Your task to perform on an android device: open app "Messenger Lite" (install if not already installed) Image 0: 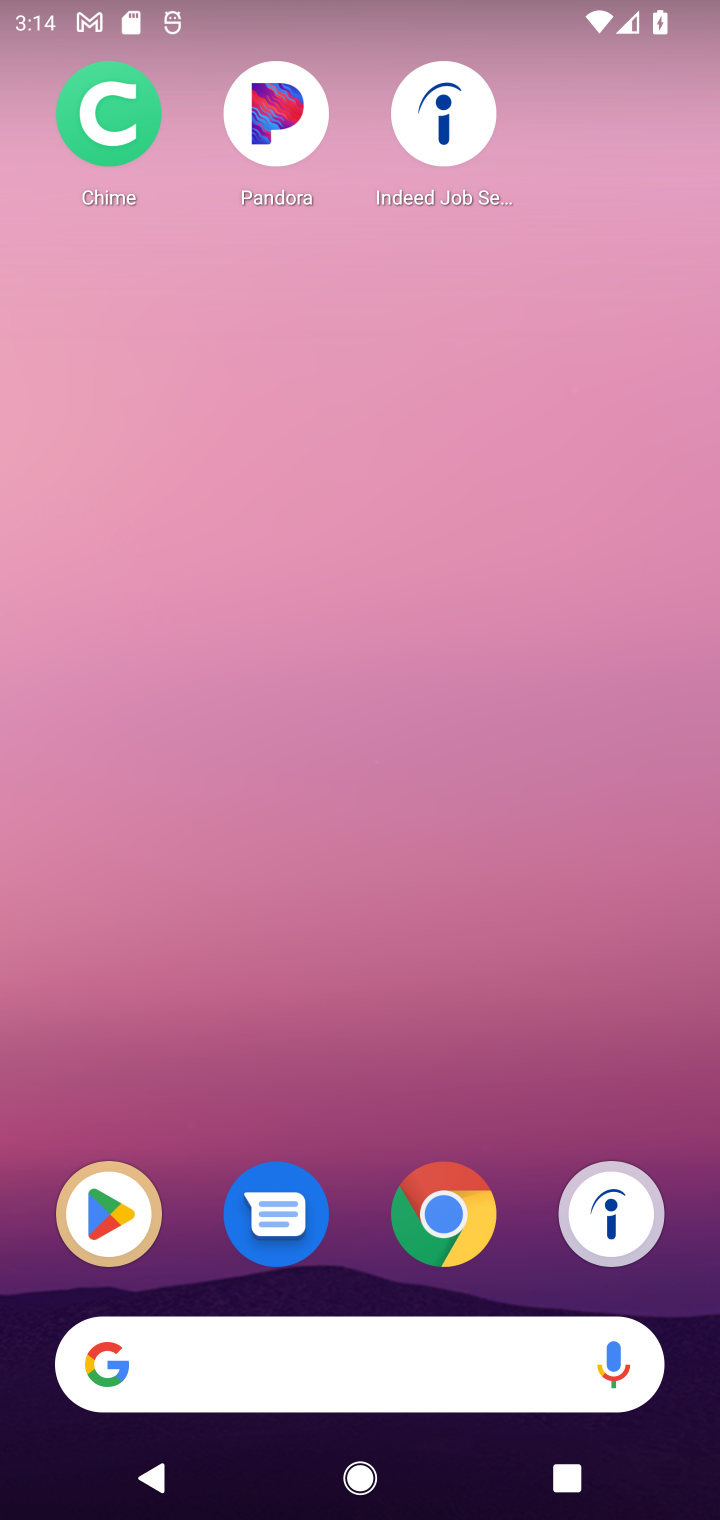
Step 0: click (138, 1206)
Your task to perform on an android device: open app "Messenger Lite" (install if not already installed) Image 1: 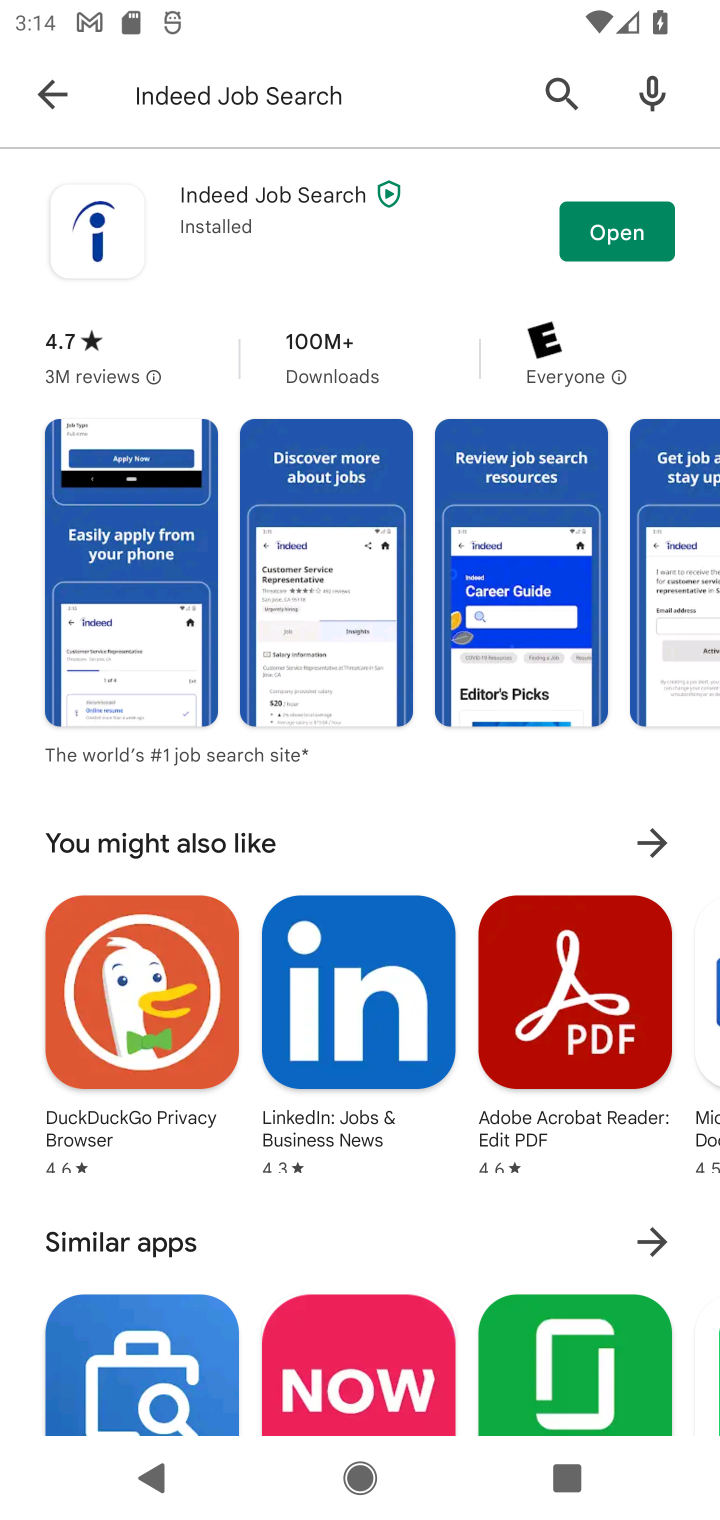
Step 1: click (570, 74)
Your task to perform on an android device: open app "Messenger Lite" (install if not already installed) Image 2: 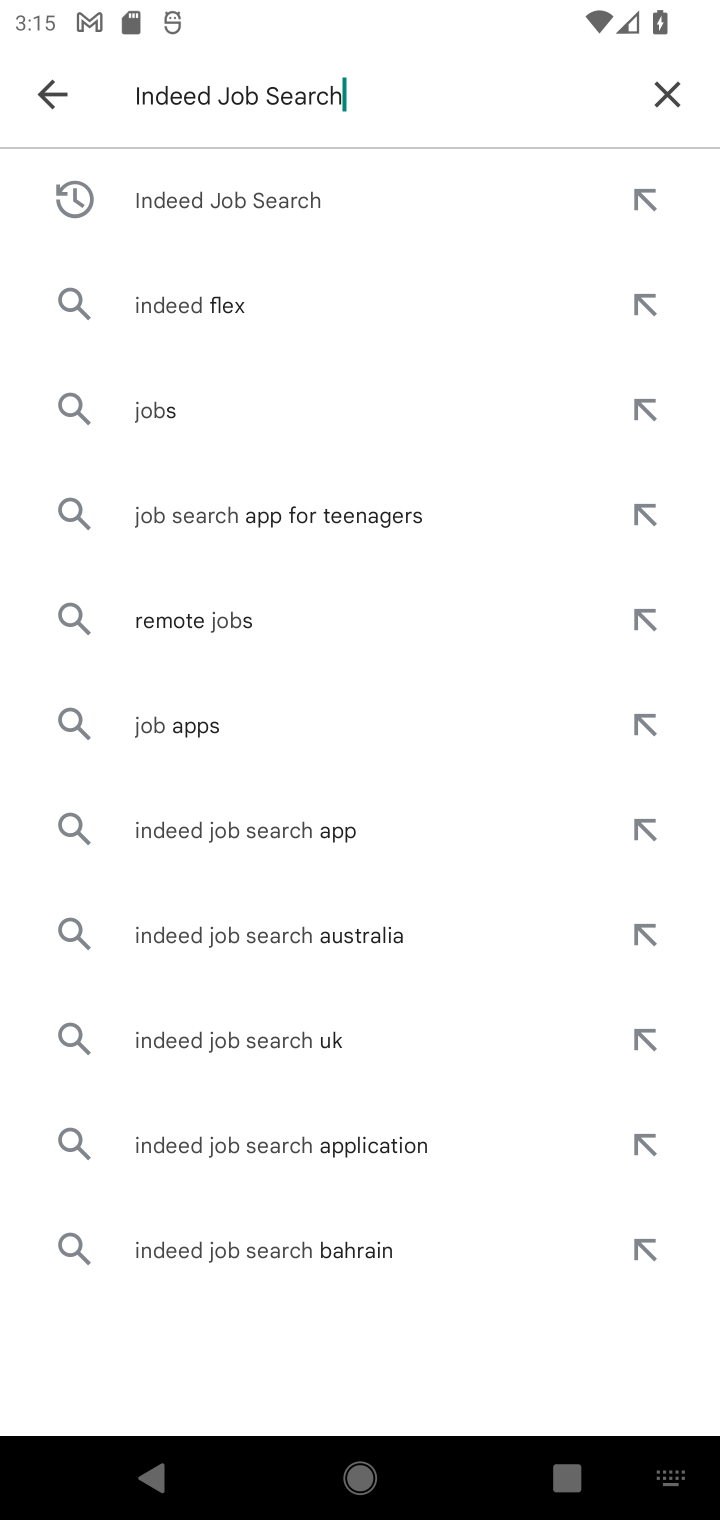
Step 2: click (682, 97)
Your task to perform on an android device: open app "Messenger Lite" (install if not already installed) Image 3: 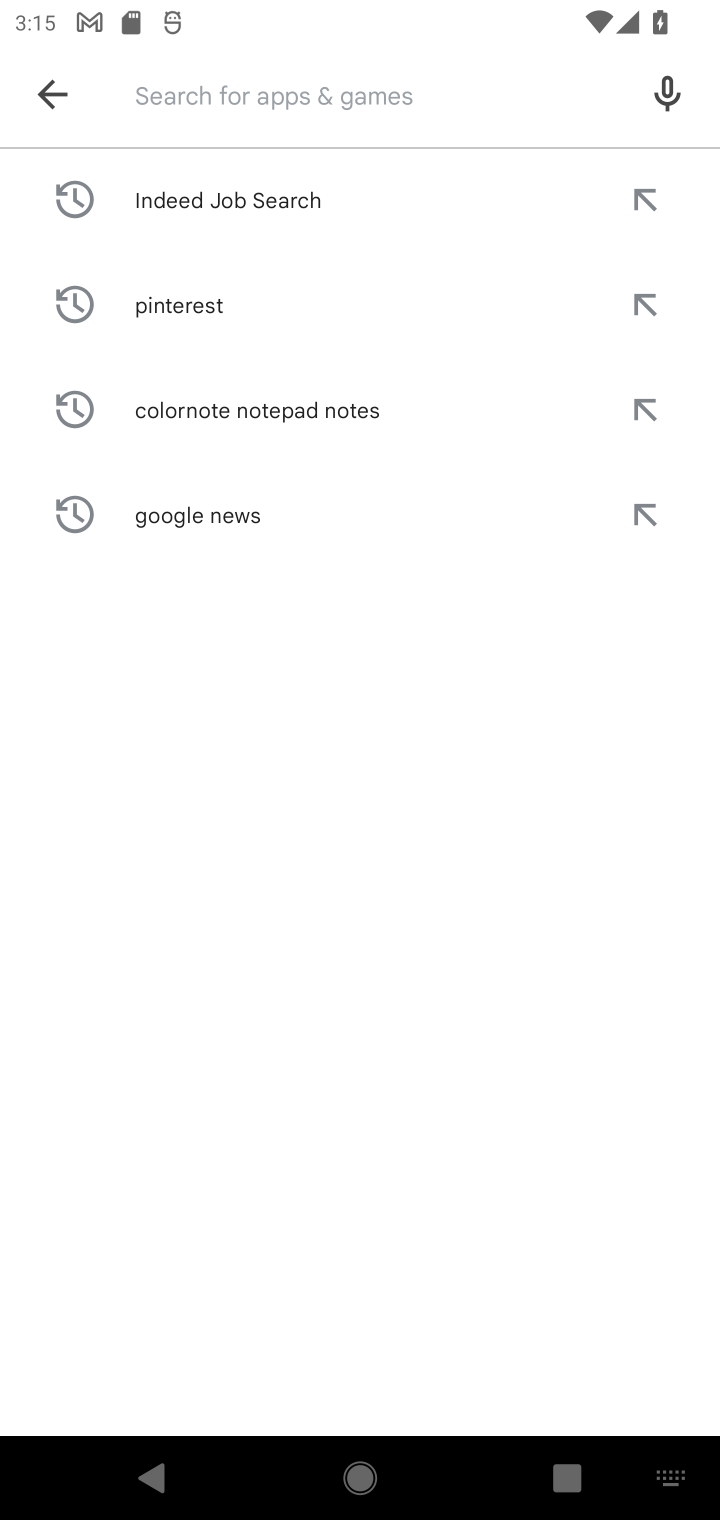
Step 3: type "Messenger Lite"
Your task to perform on an android device: open app "Messenger Lite" (install if not already installed) Image 4: 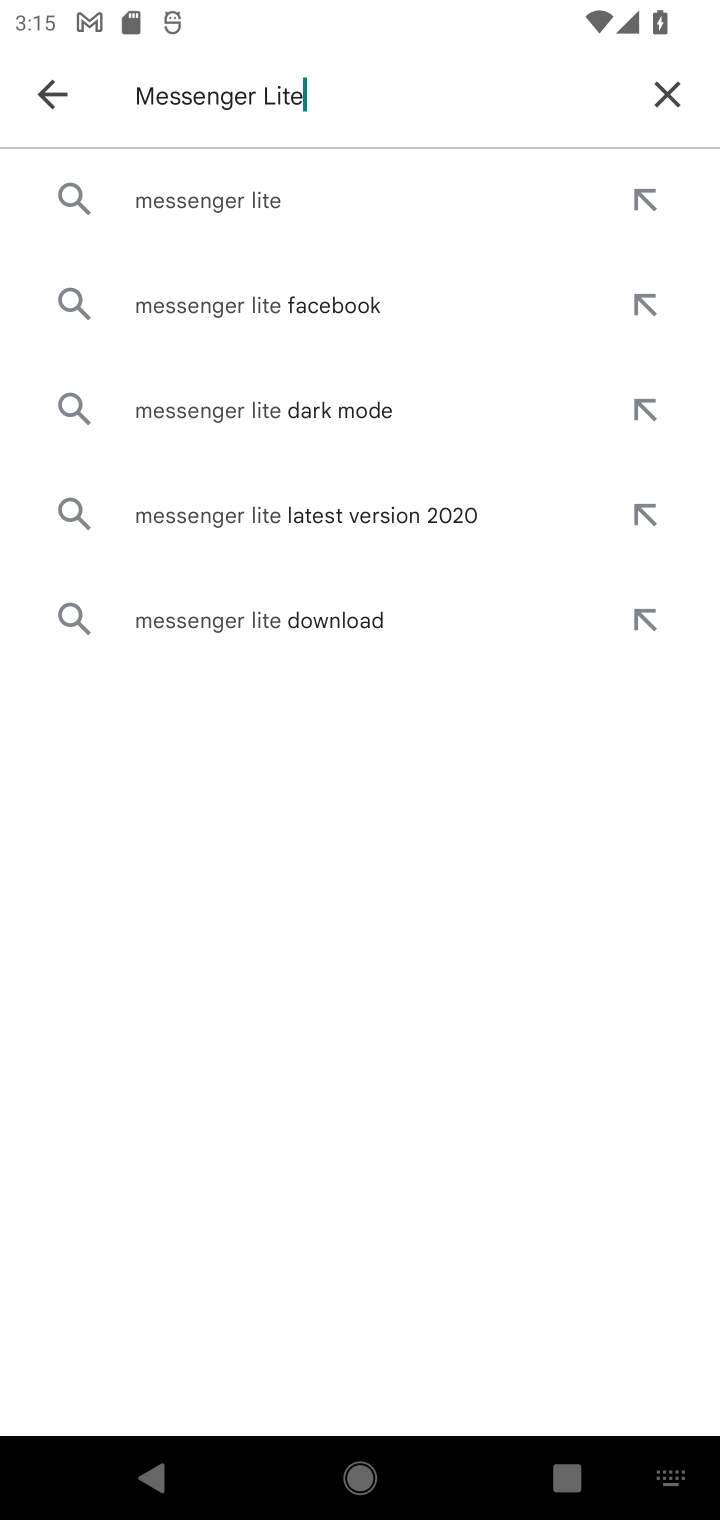
Step 4: click (486, 173)
Your task to perform on an android device: open app "Messenger Lite" (install if not already installed) Image 5: 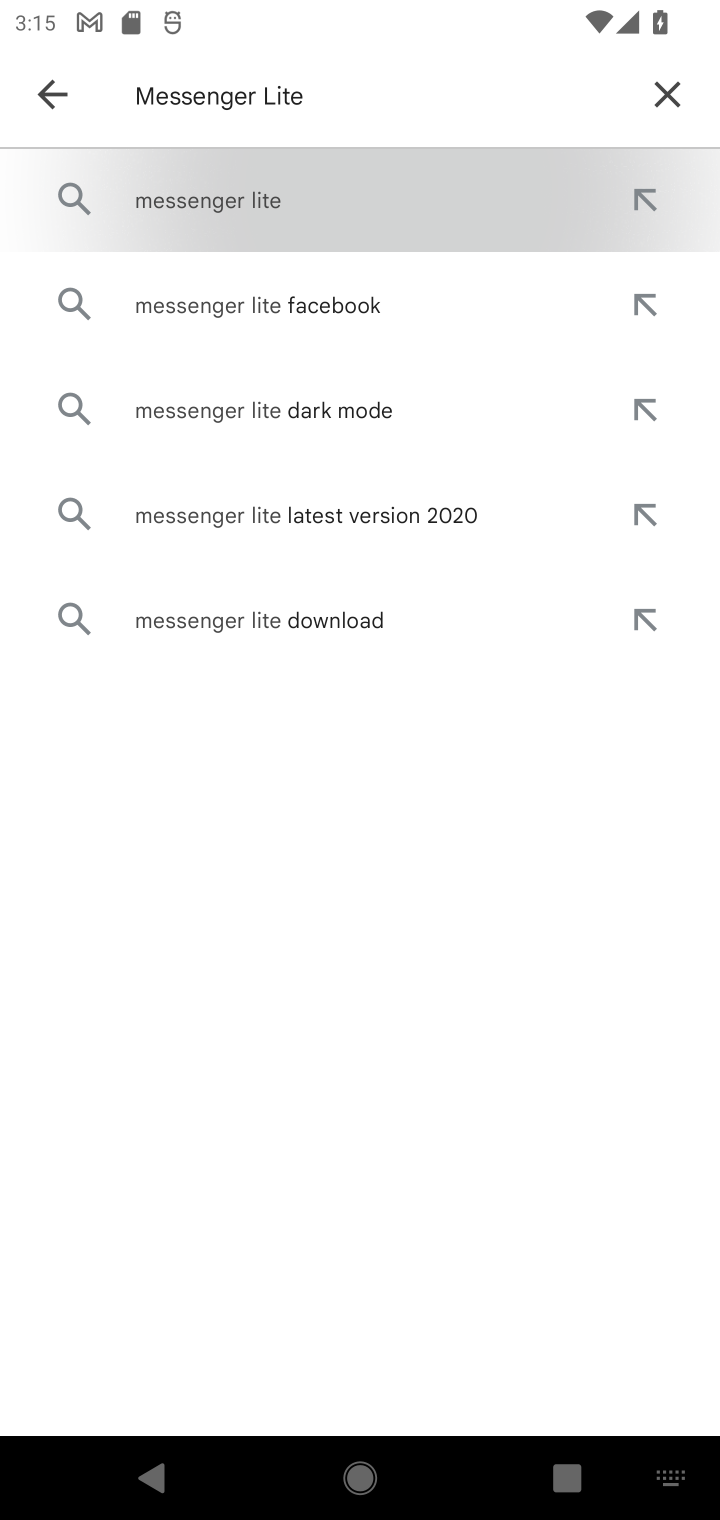
Step 5: click (486, 173)
Your task to perform on an android device: open app "Messenger Lite" (install if not already installed) Image 6: 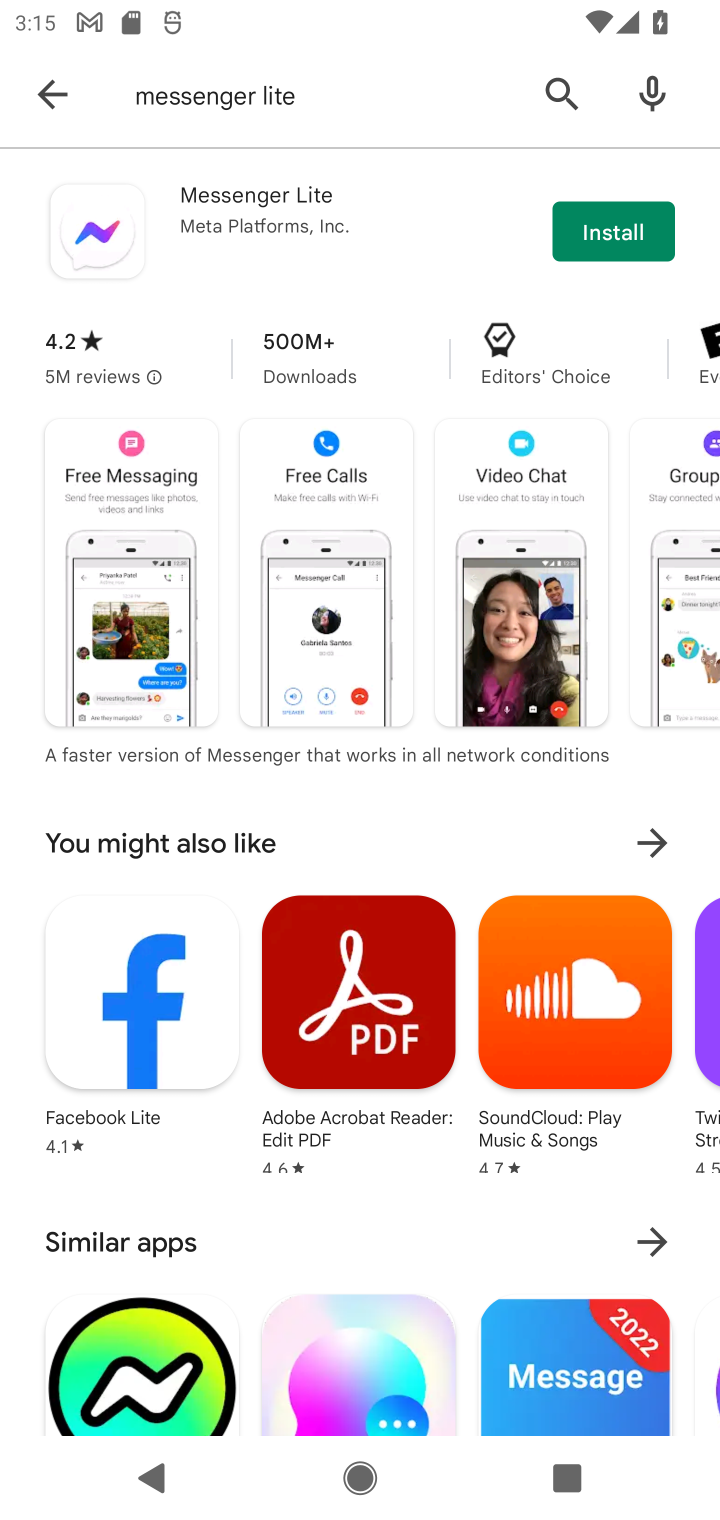
Step 6: drag from (689, 230) to (363, 1374)
Your task to perform on an android device: open app "Messenger Lite" (install if not already installed) Image 7: 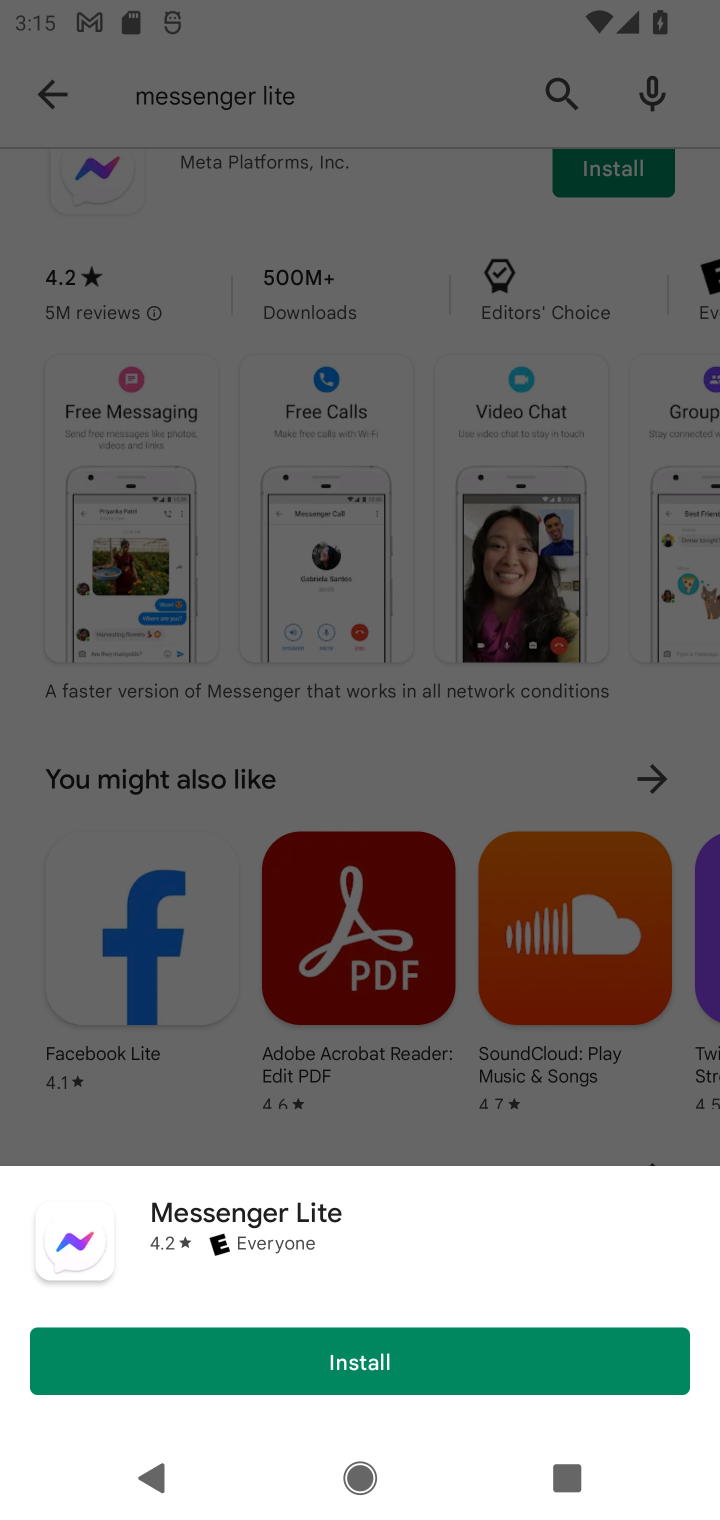
Step 7: click (440, 1359)
Your task to perform on an android device: open app "Messenger Lite" (install if not already installed) Image 8: 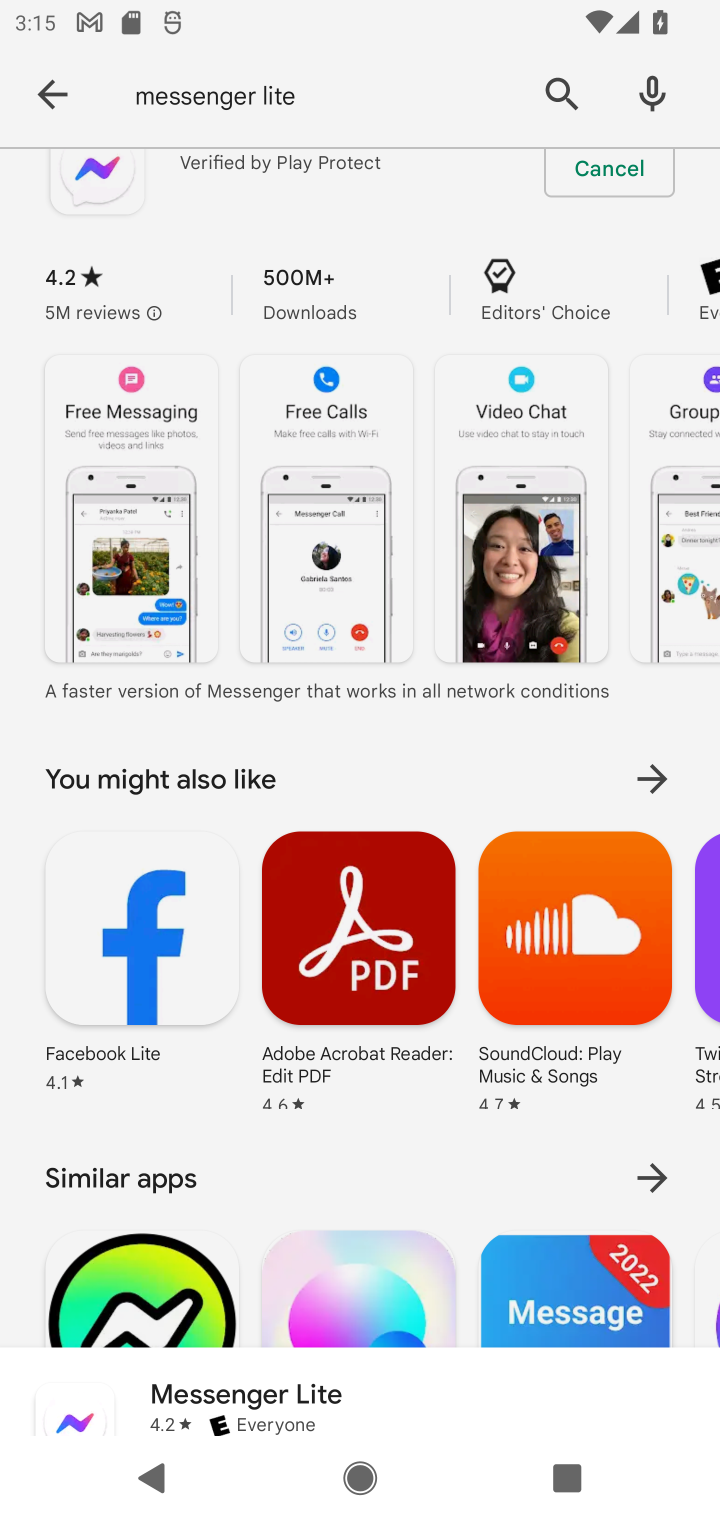
Step 8: click (440, 1359)
Your task to perform on an android device: open app "Messenger Lite" (install if not already installed) Image 9: 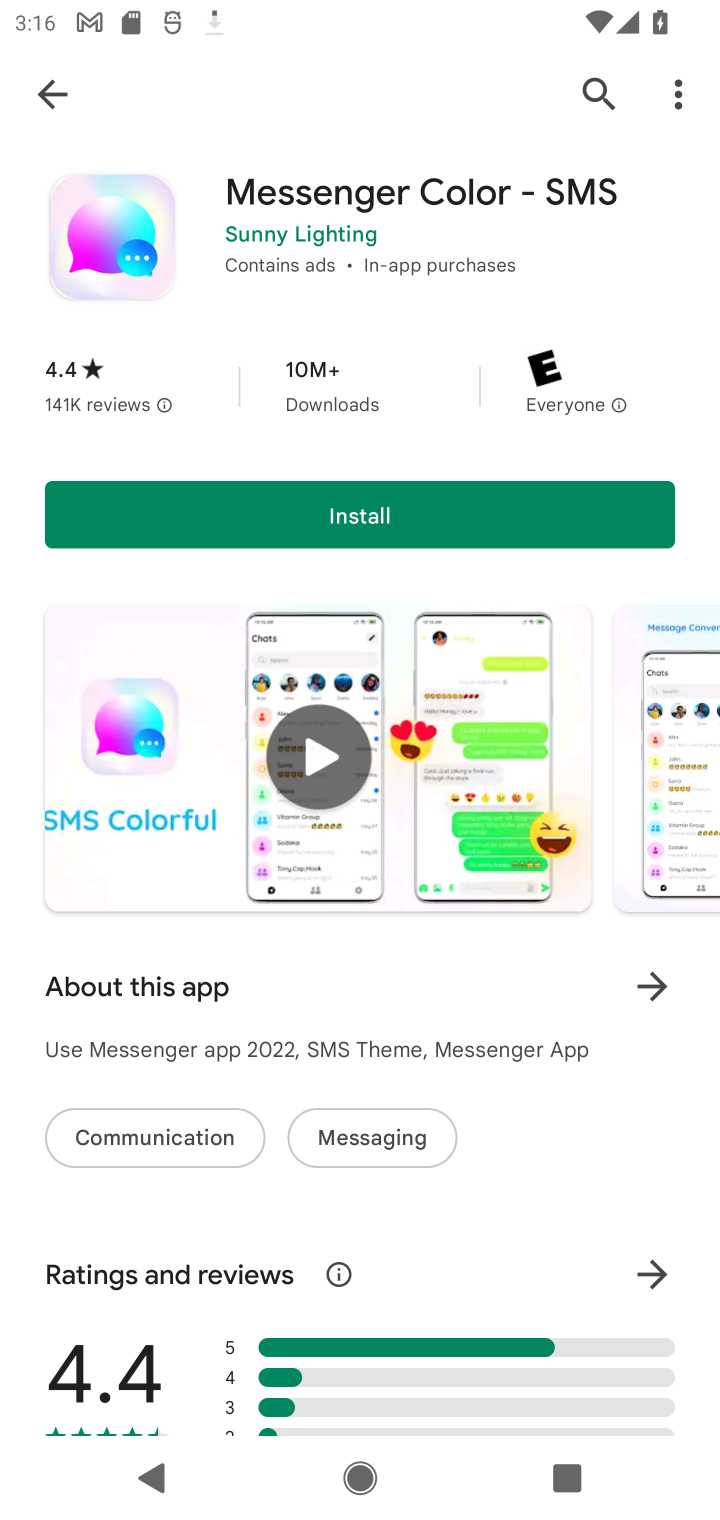
Step 9: click (56, 101)
Your task to perform on an android device: open app "Messenger Lite" (install if not already installed) Image 10: 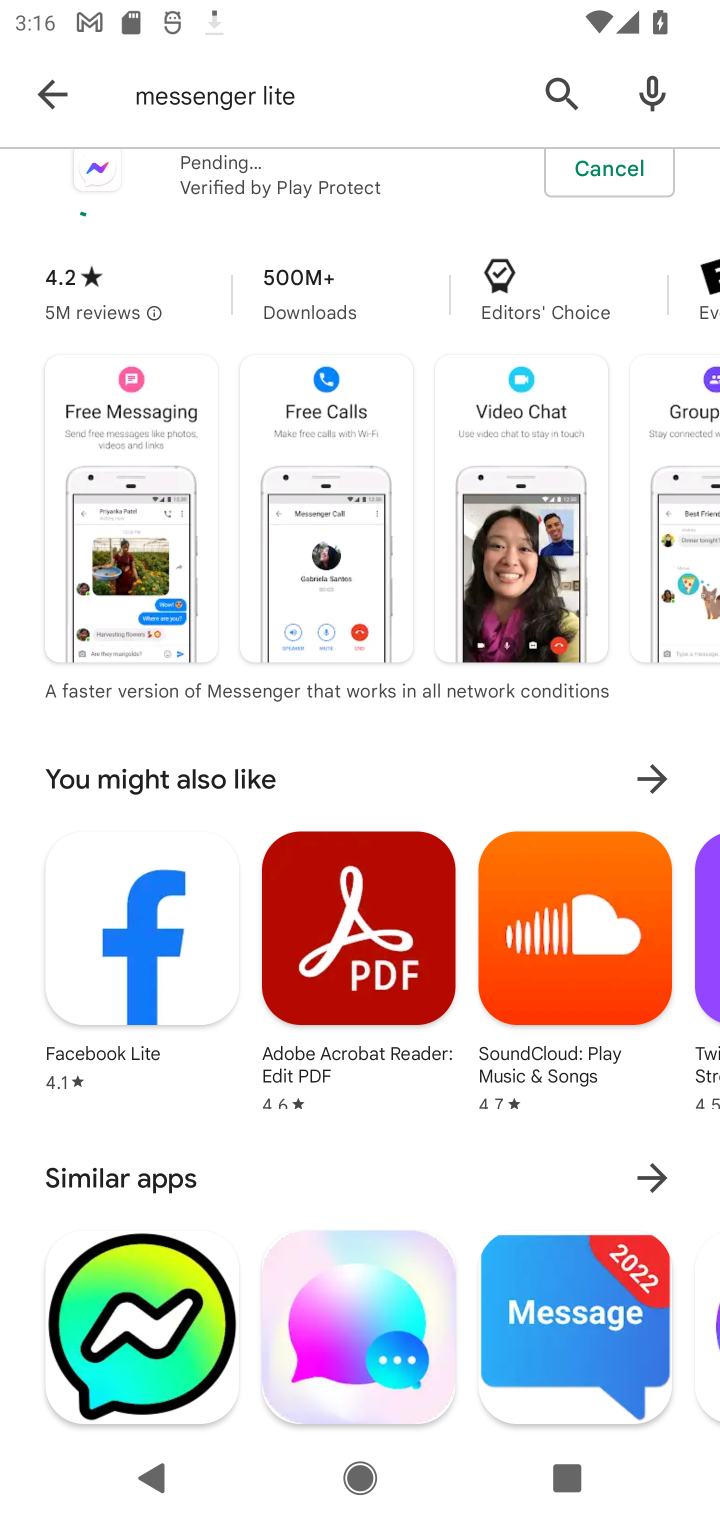
Step 10: drag from (437, 174) to (446, 677)
Your task to perform on an android device: open app "Messenger Lite" (install if not already installed) Image 11: 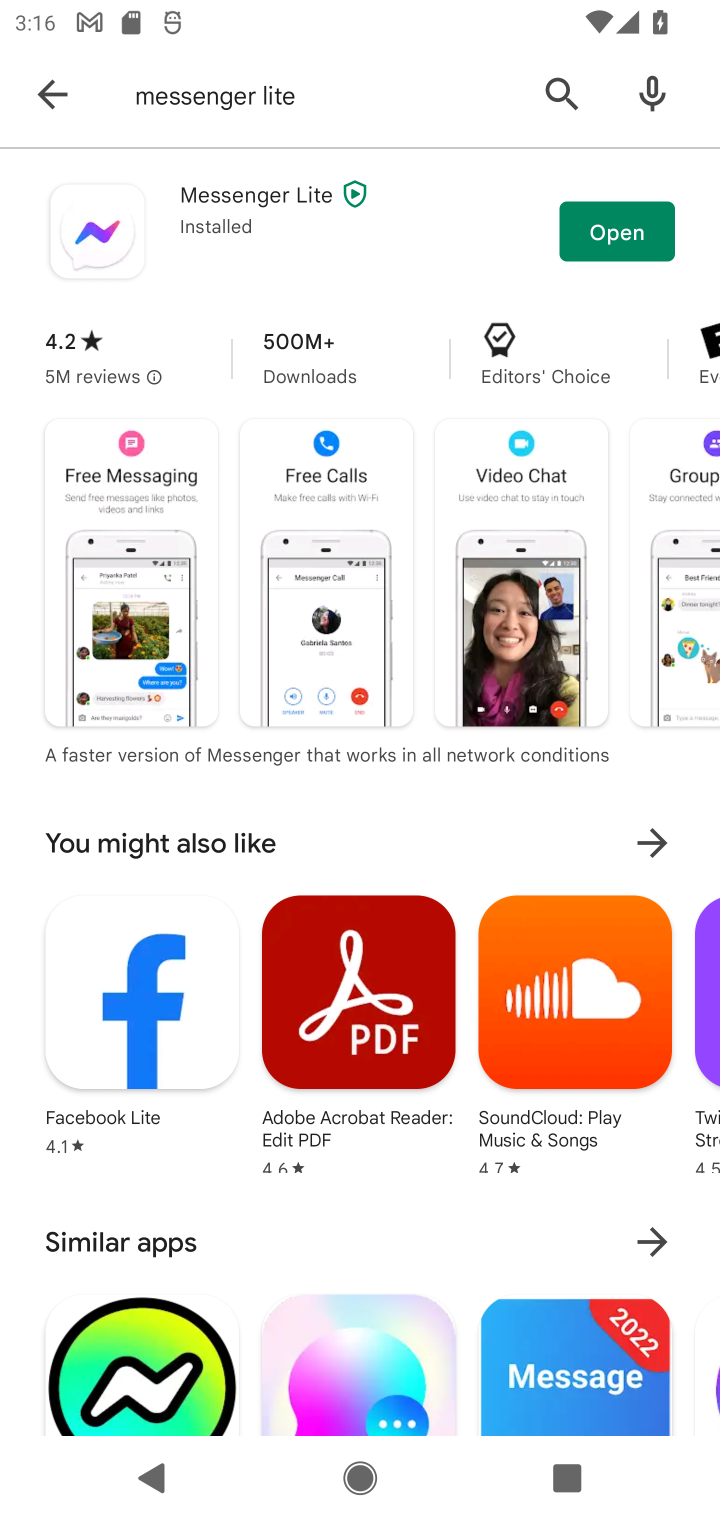
Step 11: click (656, 228)
Your task to perform on an android device: open app "Messenger Lite" (install if not already installed) Image 12: 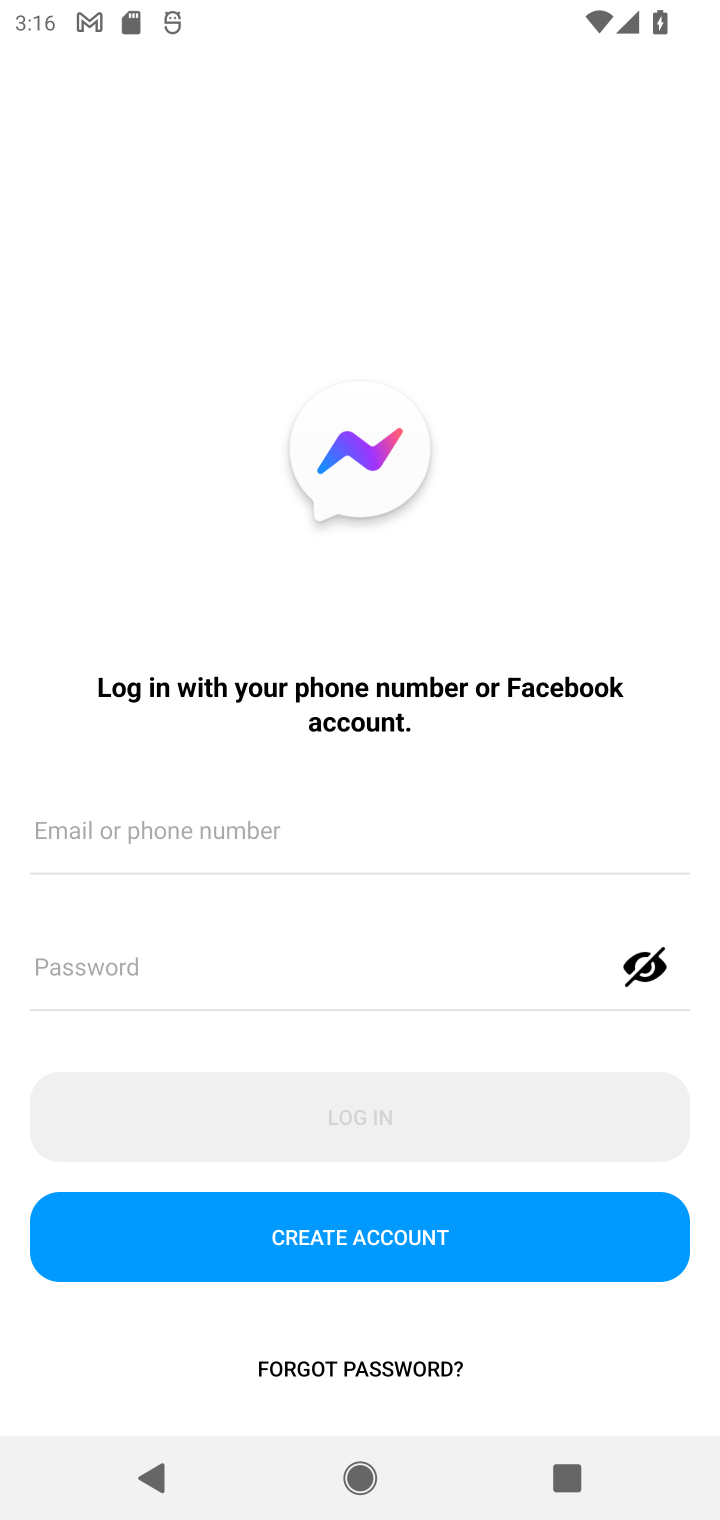
Step 12: task complete